Your task to perform on an android device: check out phone information Image 0: 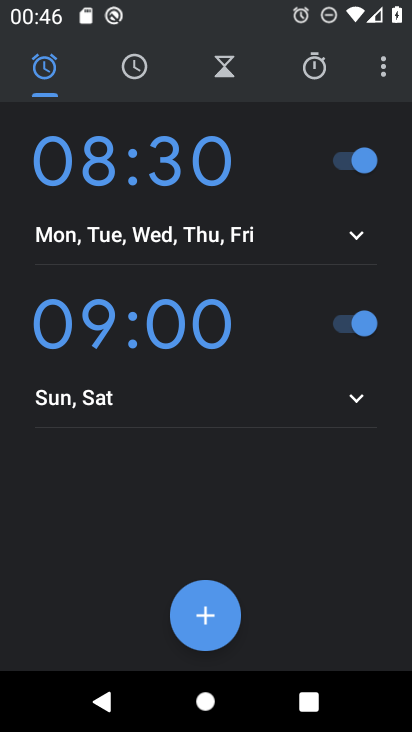
Step 0: press home button
Your task to perform on an android device: check out phone information Image 1: 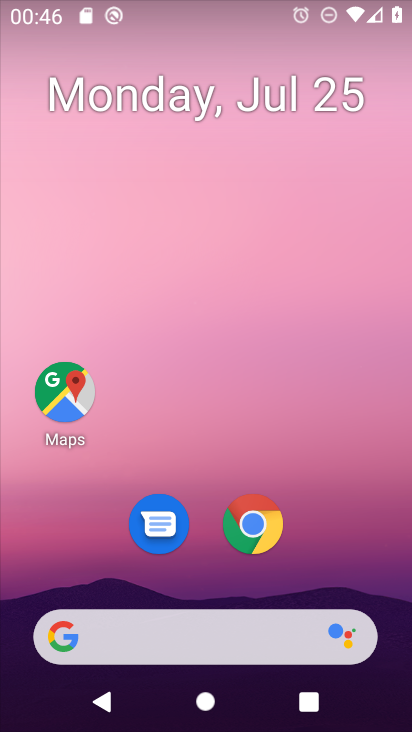
Step 1: drag from (208, 645) to (340, 155)
Your task to perform on an android device: check out phone information Image 2: 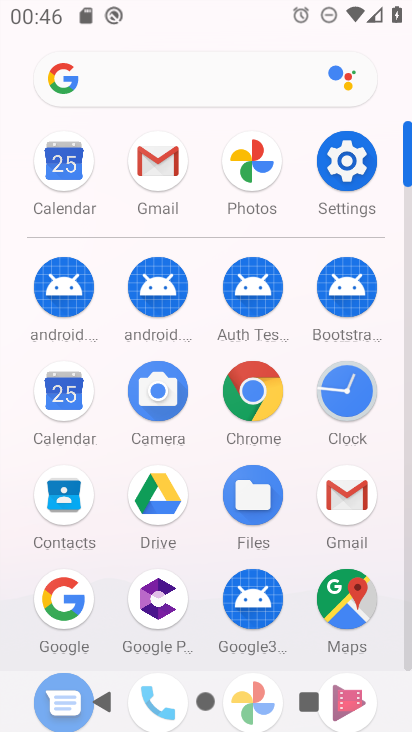
Step 2: click (349, 164)
Your task to perform on an android device: check out phone information Image 3: 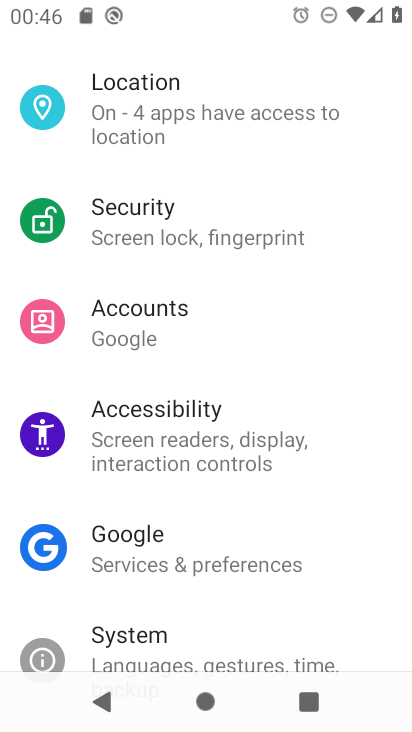
Step 3: drag from (226, 634) to (345, 169)
Your task to perform on an android device: check out phone information Image 4: 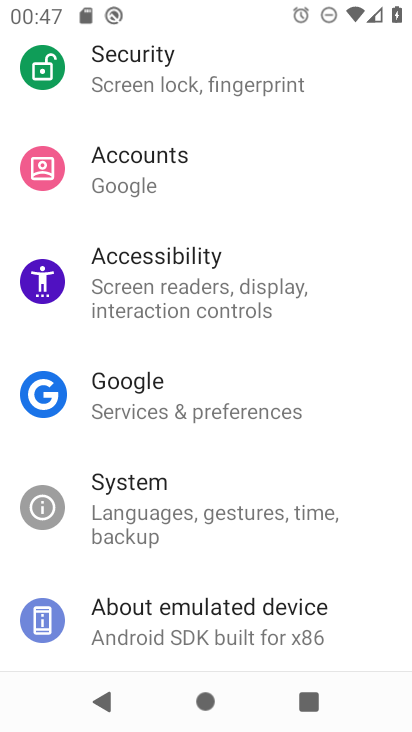
Step 4: click (199, 620)
Your task to perform on an android device: check out phone information Image 5: 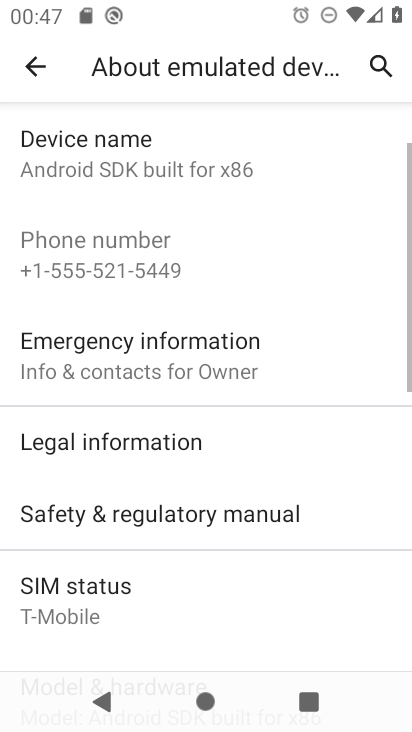
Step 5: task complete